Your task to perform on an android device: change timer sound Image 0: 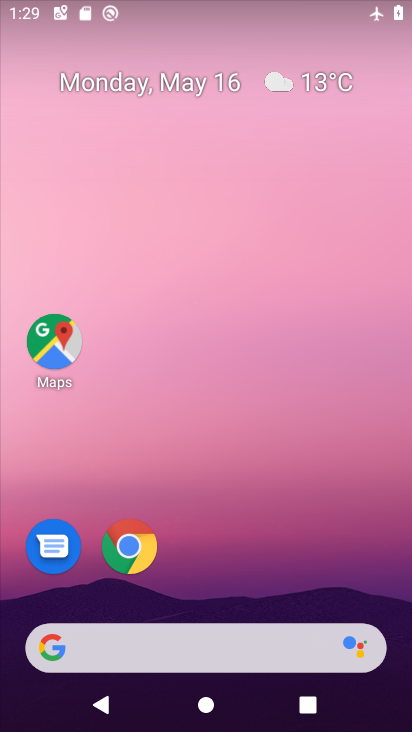
Step 0: drag from (224, 723) to (253, 153)
Your task to perform on an android device: change timer sound Image 1: 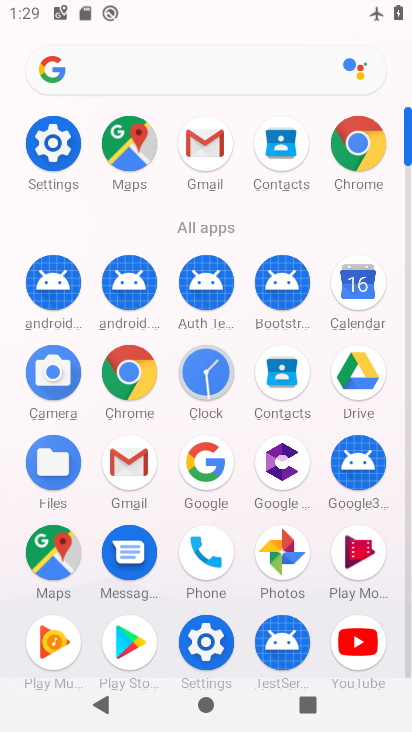
Step 1: click (47, 141)
Your task to perform on an android device: change timer sound Image 2: 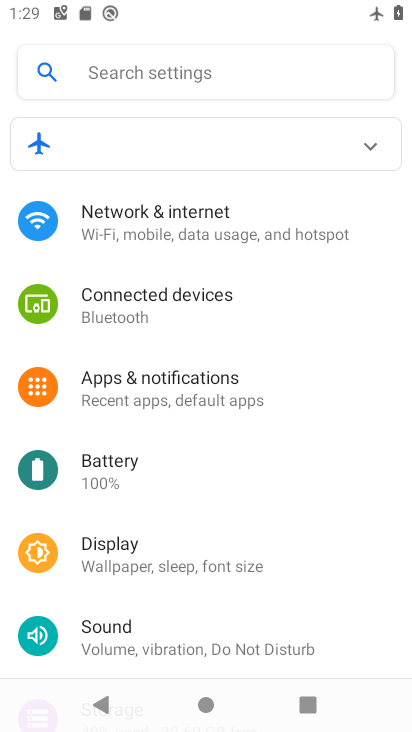
Step 2: press back button
Your task to perform on an android device: change timer sound Image 3: 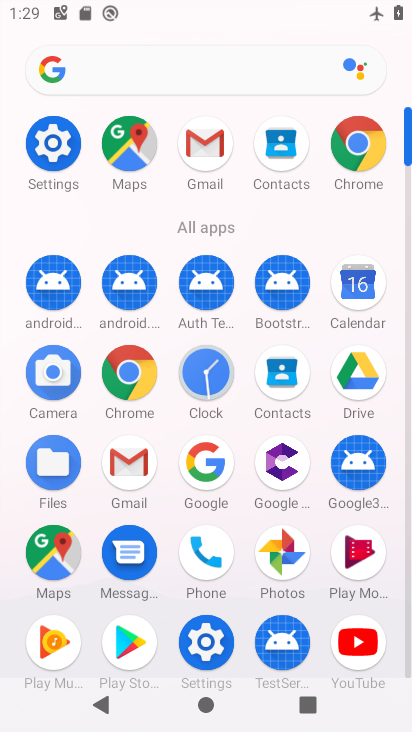
Step 3: click (208, 369)
Your task to perform on an android device: change timer sound Image 4: 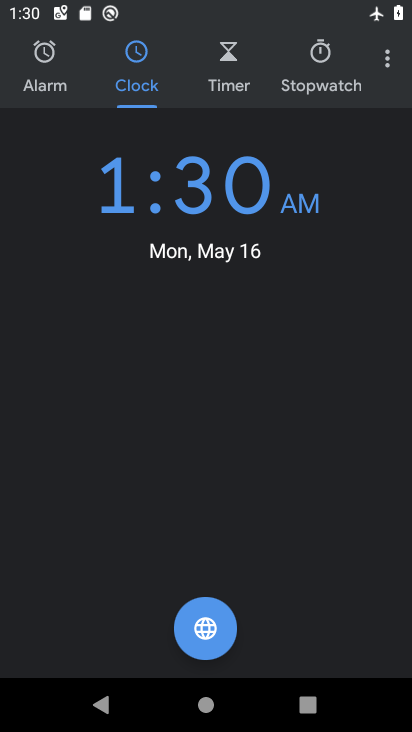
Step 4: click (391, 58)
Your task to perform on an android device: change timer sound Image 5: 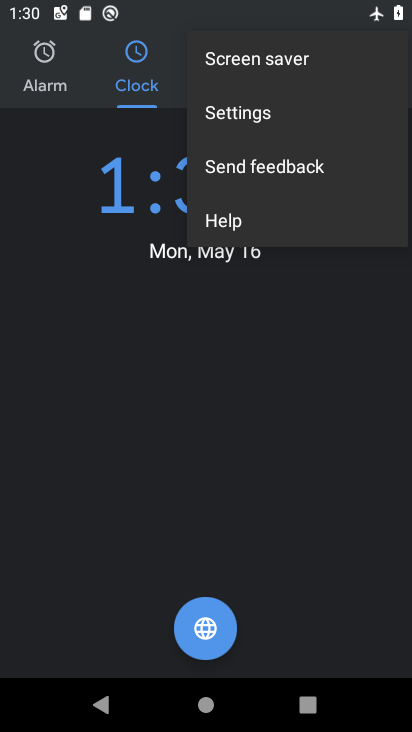
Step 5: click (216, 117)
Your task to perform on an android device: change timer sound Image 6: 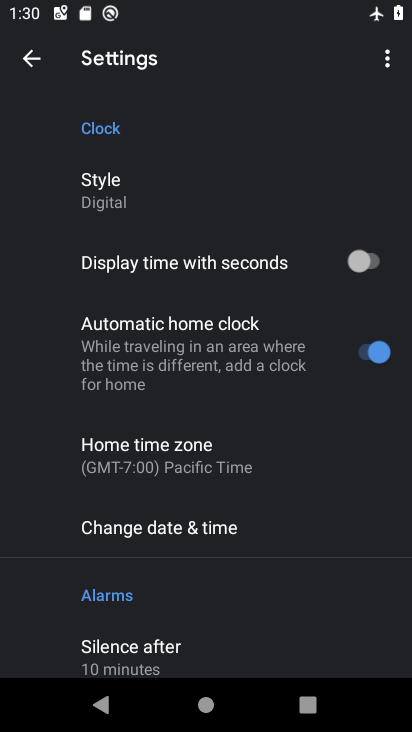
Step 6: drag from (193, 618) to (208, 223)
Your task to perform on an android device: change timer sound Image 7: 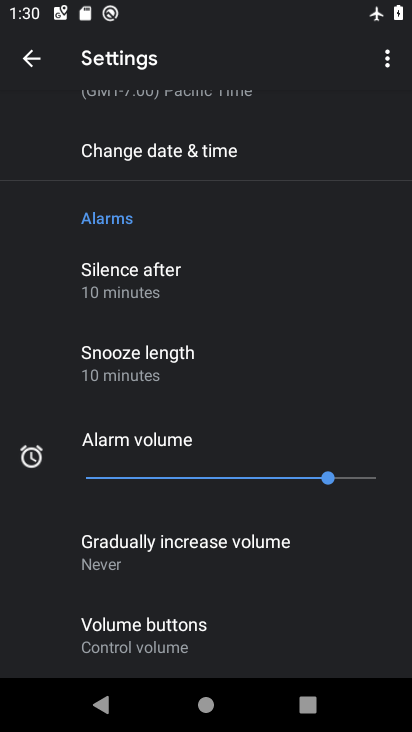
Step 7: drag from (150, 637) to (170, 207)
Your task to perform on an android device: change timer sound Image 8: 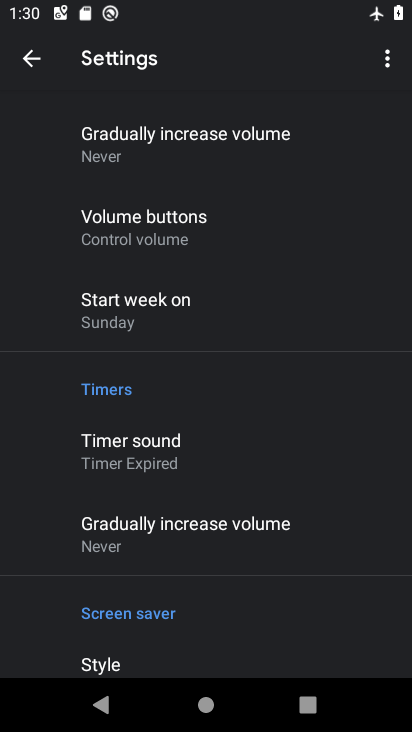
Step 8: click (160, 456)
Your task to perform on an android device: change timer sound Image 9: 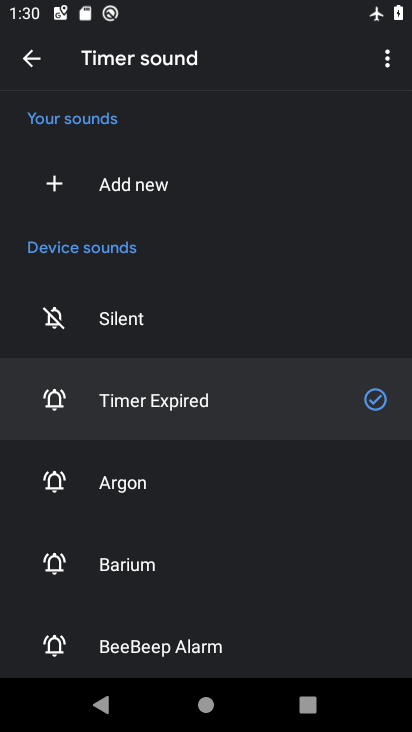
Step 9: click (126, 568)
Your task to perform on an android device: change timer sound Image 10: 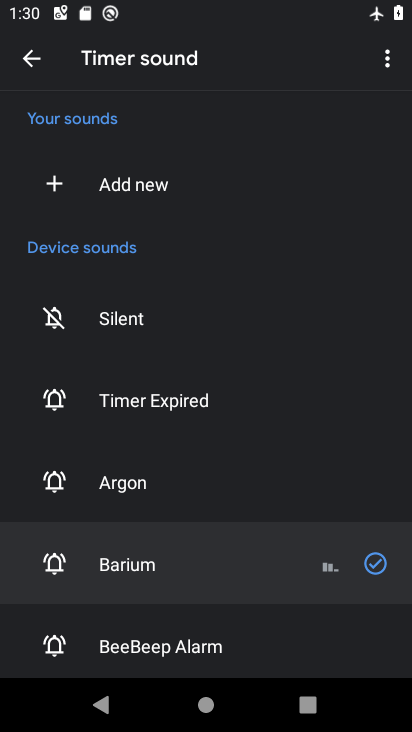
Step 10: task complete